Your task to perform on an android device: read, delete, or share a saved page in the chrome app Image 0: 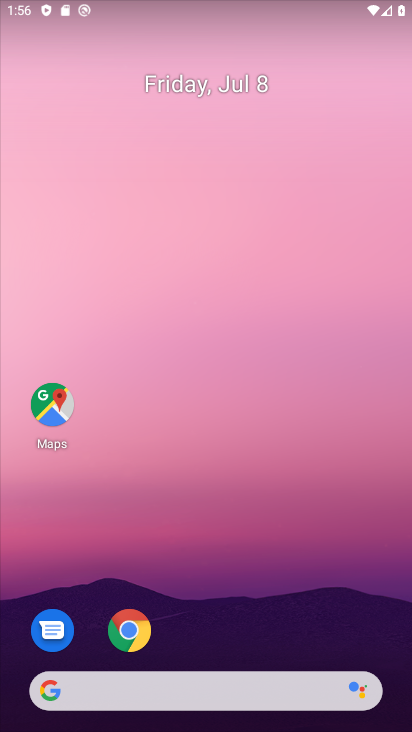
Step 0: drag from (257, 625) to (215, 221)
Your task to perform on an android device: read, delete, or share a saved page in the chrome app Image 1: 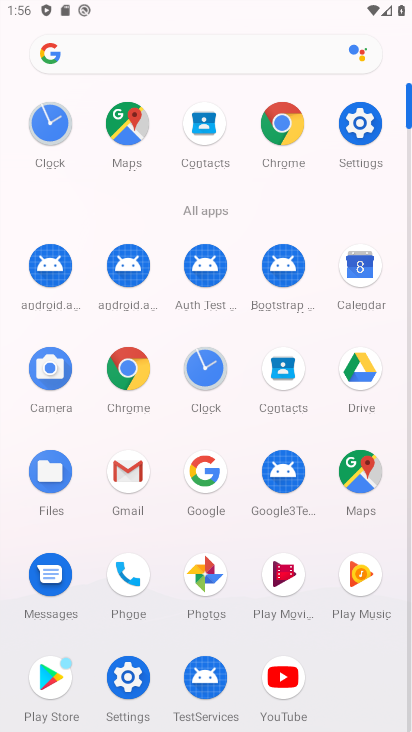
Step 1: click (125, 365)
Your task to perform on an android device: read, delete, or share a saved page in the chrome app Image 2: 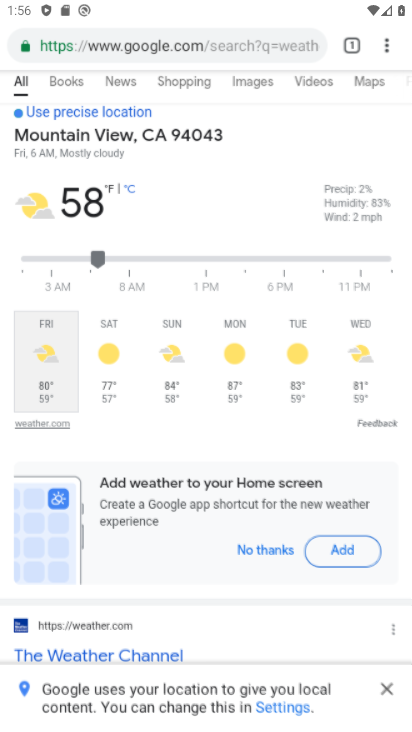
Step 2: task complete